Your task to perform on an android device: toggle airplane mode Image 0: 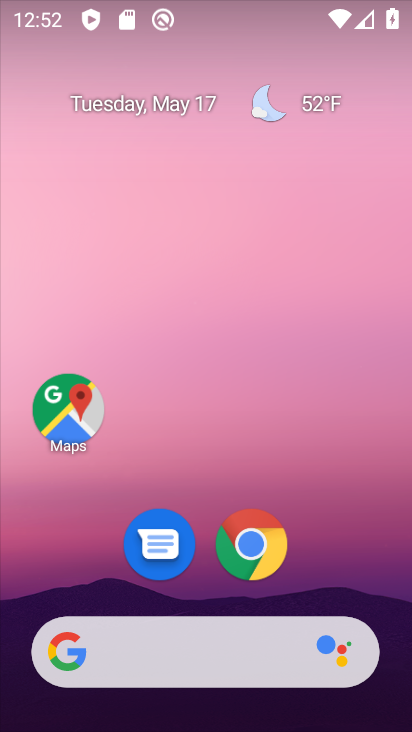
Step 0: drag from (355, 575) to (341, 169)
Your task to perform on an android device: toggle airplane mode Image 1: 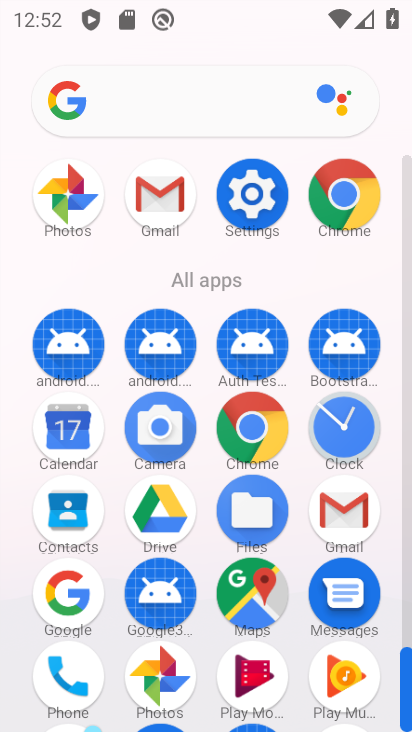
Step 1: click (255, 227)
Your task to perform on an android device: toggle airplane mode Image 2: 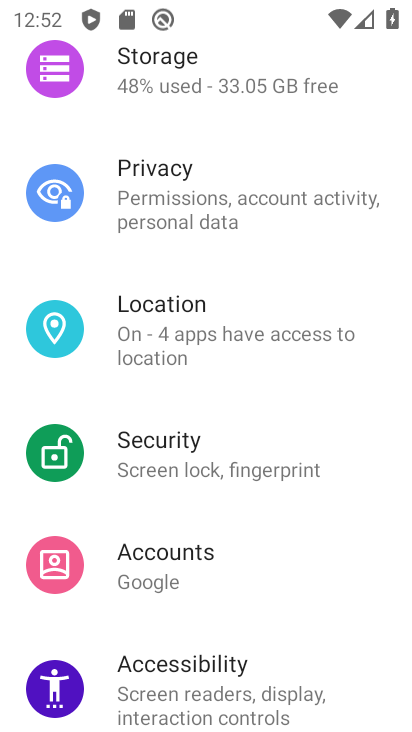
Step 2: drag from (257, 148) to (277, 563)
Your task to perform on an android device: toggle airplane mode Image 3: 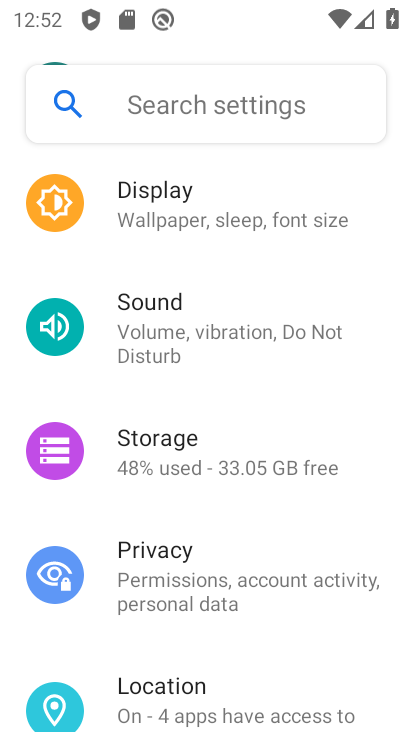
Step 3: drag from (283, 248) to (300, 658)
Your task to perform on an android device: toggle airplane mode Image 4: 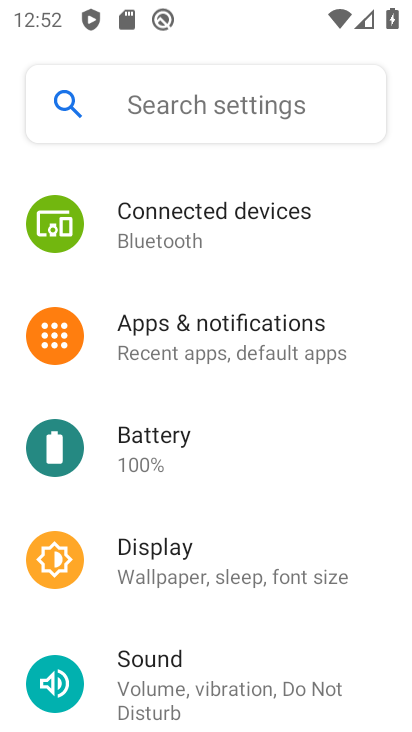
Step 4: drag from (281, 230) to (284, 544)
Your task to perform on an android device: toggle airplane mode Image 5: 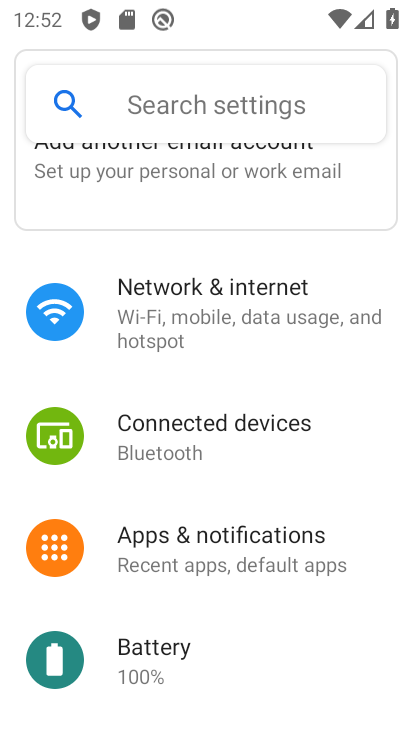
Step 5: click (263, 288)
Your task to perform on an android device: toggle airplane mode Image 6: 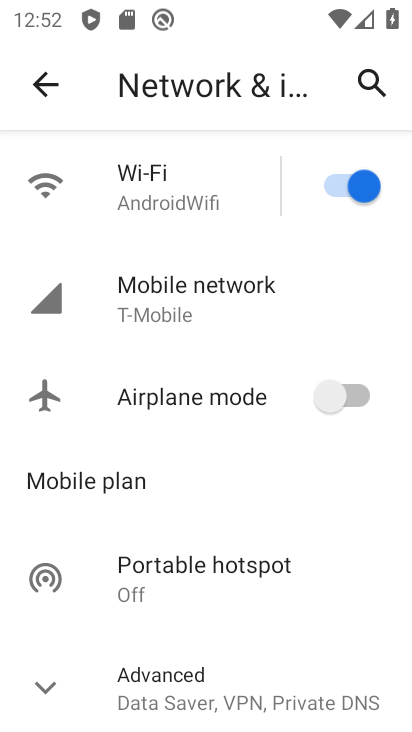
Step 6: click (358, 392)
Your task to perform on an android device: toggle airplane mode Image 7: 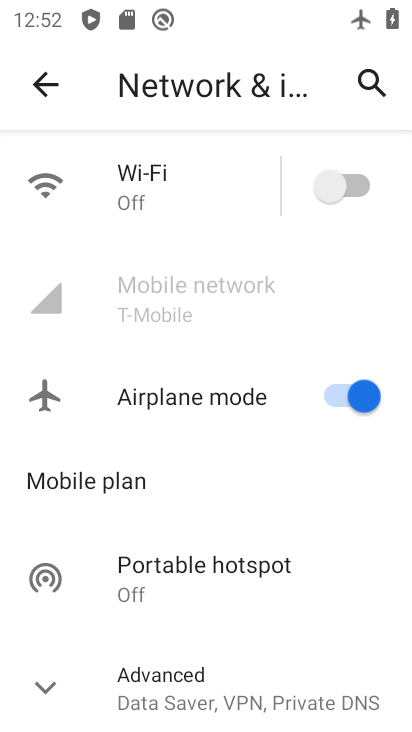
Step 7: task complete